Your task to perform on an android device: Search for "acer nitro" on target, select the first entry, add it to the cart, then select checkout. Image 0: 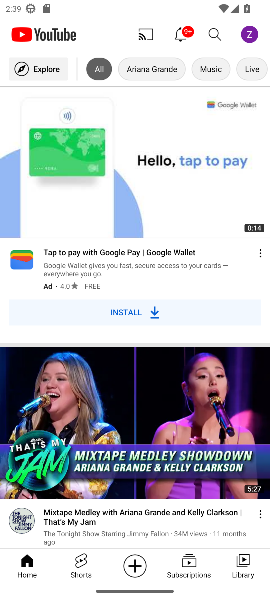
Step 0: press home button
Your task to perform on an android device: Search for "acer nitro" on target, select the first entry, add it to the cart, then select checkout. Image 1: 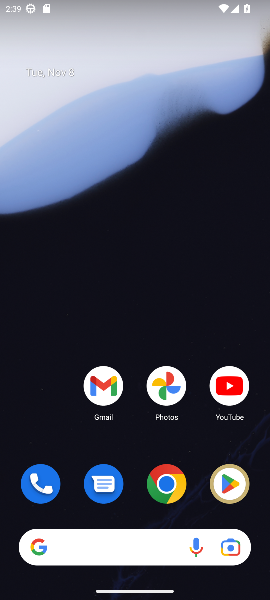
Step 1: click (170, 477)
Your task to perform on an android device: Search for "acer nitro" on target, select the first entry, add it to the cart, then select checkout. Image 2: 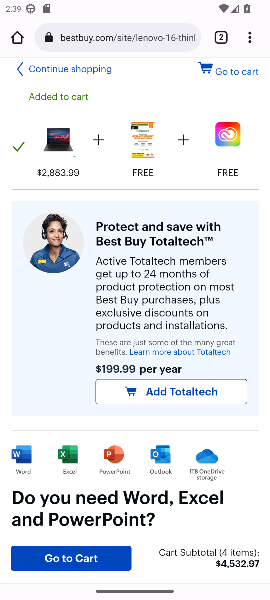
Step 2: click (149, 33)
Your task to perform on an android device: Search for "acer nitro" on target, select the first entry, add it to the cart, then select checkout. Image 3: 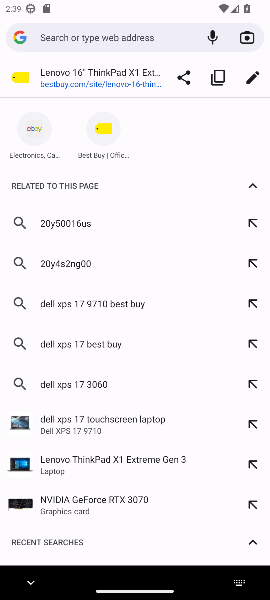
Step 3: type "target"
Your task to perform on an android device: Search for "acer nitro" on target, select the first entry, add it to the cart, then select checkout. Image 4: 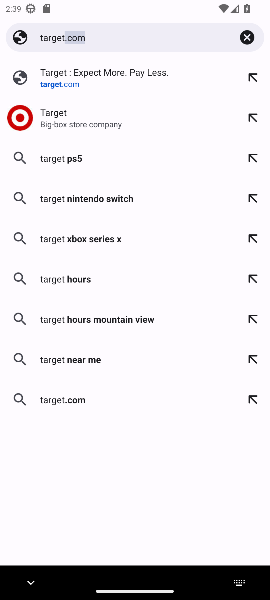
Step 4: click (71, 117)
Your task to perform on an android device: Search for "acer nitro" on target, select the first entry, add it to the cart, then select checkout. Image 5: 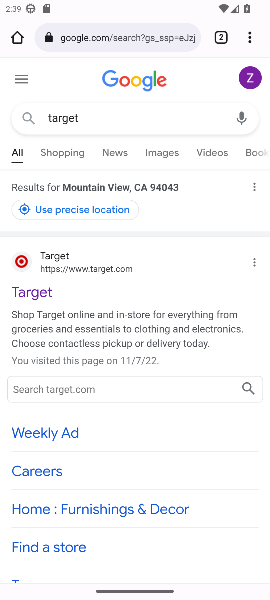
Step 5: click (30, 296)
Your task to perform on an android device: Search for "acer nitro" on target, select the first entry, add it to the cart, then select checkout. Image 6: 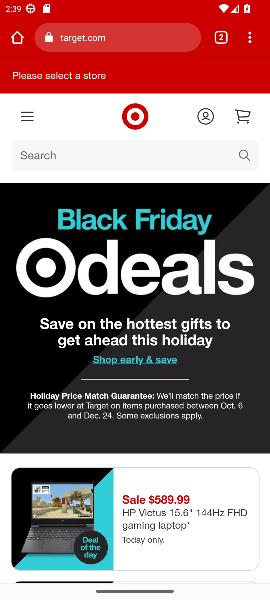
Step 6: click (42, 156)
Your task to perform on an android device: Search for "acer nitro" on target, select the first entry, add it to the cart, then select checkout. Image 7: 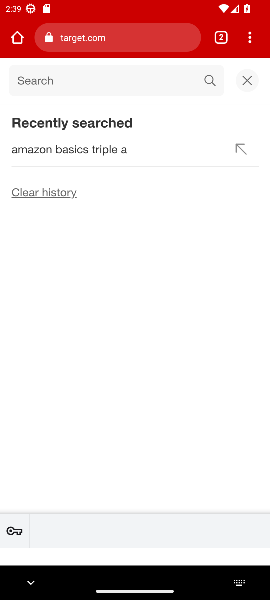
Step 7: type "acer nitro"
Your task to perform on an android device: Search for "acer nitro" on target, select the first entry, add it to the cart, then select checkout. Image 8: 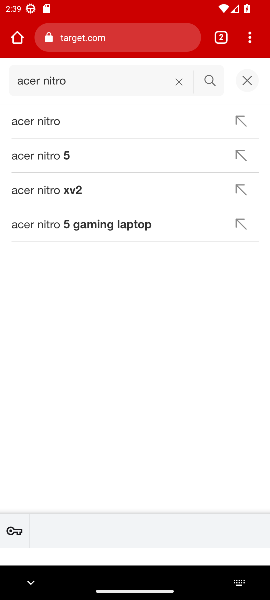
Step 8: click (215, 85)
Your task to perform on an android device: Search for "acer nitro" on target, select the first entry, add it to the cart, then select checkout. Image 9: 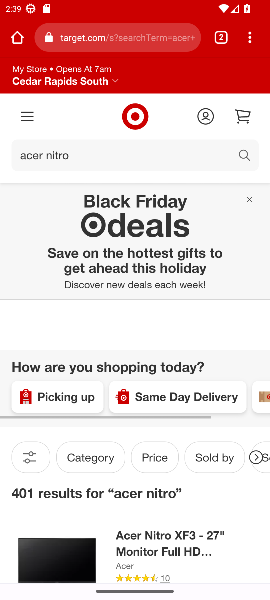
Step 9: drag from (126, 528) to (125, 164)
Your task to perform on an android device: Search for "acer nitro" on target, select the first entry, add it to the cart, then select checkout. Image 10: 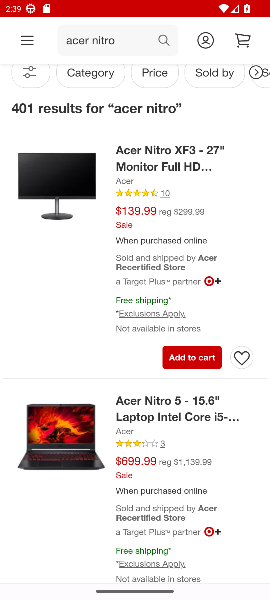
Step 10: click (196, 352)
Your task to perform on an android device: Search for "acer nitro" on target, select the first entry, add it to the cart, then select checkout. Image 11: 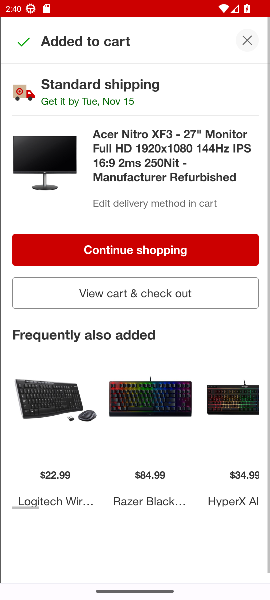
Step 11: click (166, 294)
Your task to perform on an android device: Search for "acer nitro" on target, select the first entry, add it to the cart, then select checkout. Image 12: 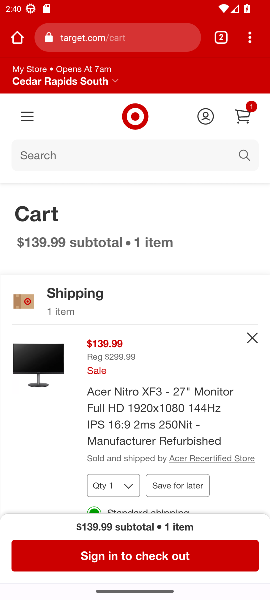
Step 12: click (105, 549)
Your task to perform on an android device: Search for "acer nitro" on target, select the first entry, add it to the cart, then select checkout. Image 13: 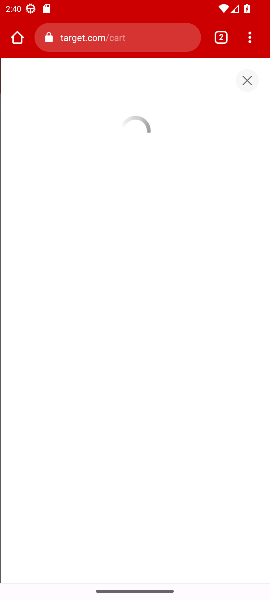
Step 13: task complete